Your task to perform on an android device: Open Google Maps and go to "Timeline" Image 0: 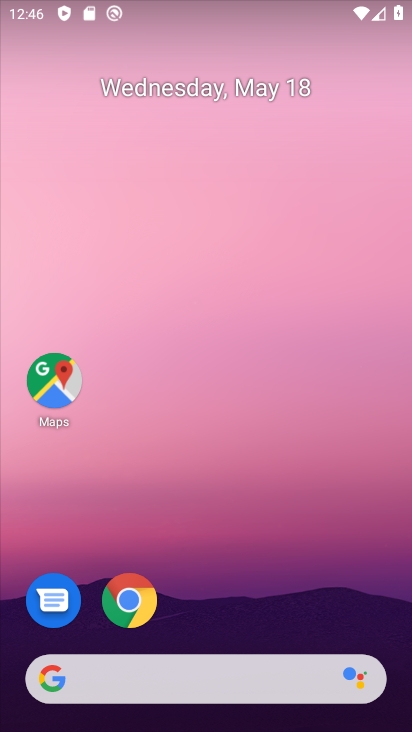
Step 0: click (51, 384)
Your task to perform on an android device: Open Google Maps and go to "Timeline" Image 1: 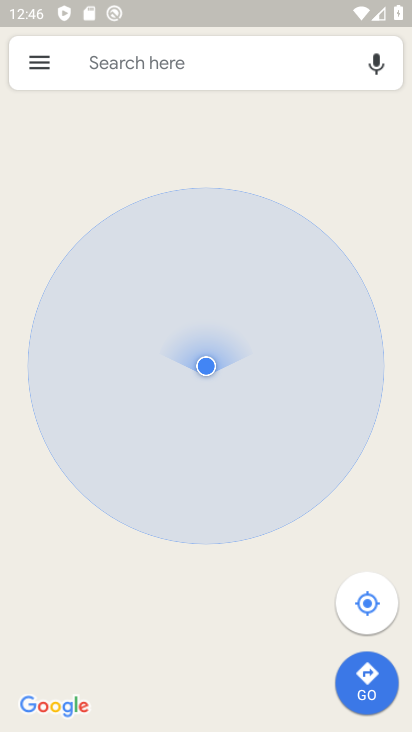
Step 1: click (36, 68)
Your task to perform on an android device: Open Google Maps and go to "Timeline" Image 2: 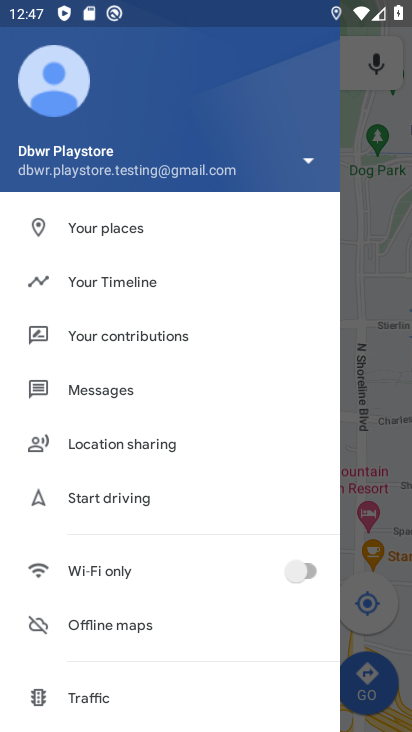
Step 2: click (114, 279)
Your task to perform on an android device: Open Google Maps and go to "Timeline" Image 3: 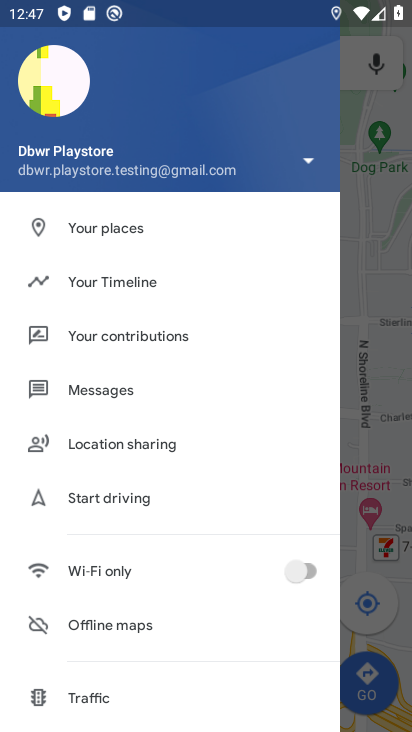
Step 3: click (124, 280)
Your task to perform on an android device: Open Google Maps and go to "Timeline" Image 4: 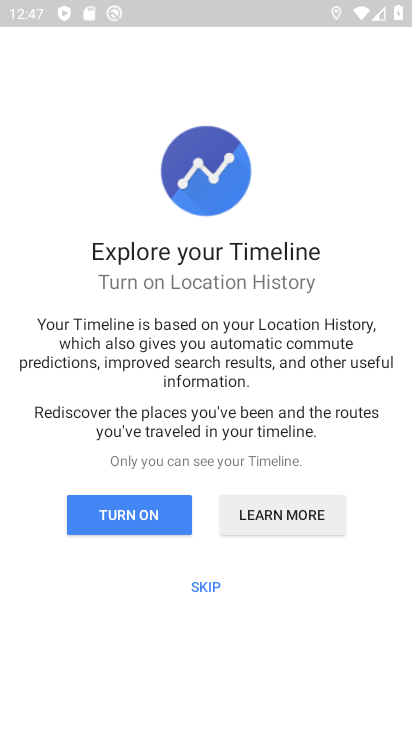
Step 4: click (200, 584)
Your task to perform on an android device: Open Google Maps and go to "Timeline" Image 5: 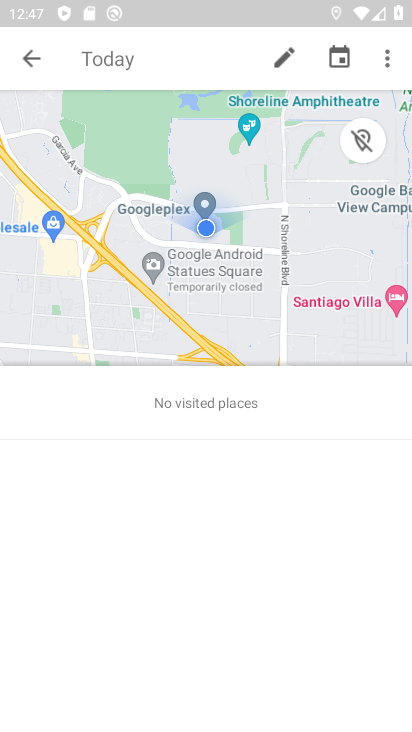
Step 5: task complete